Your task to perform on an android device: see sites visited before in the chrome app Image 0: 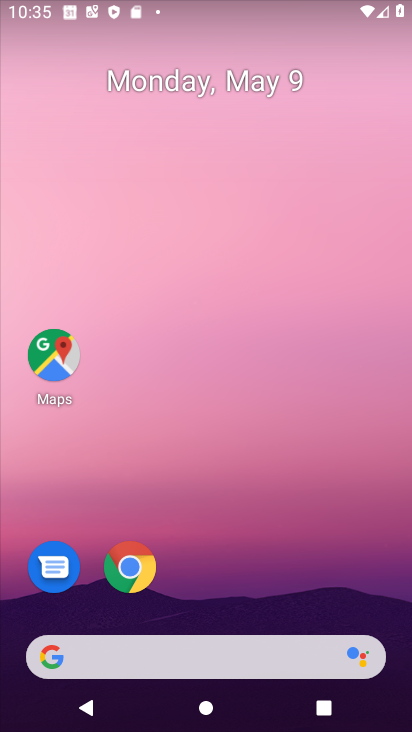
Step 0: click (131, 575)
Your task to perform on an android device: see sites visited before in the chrome app Image 1: 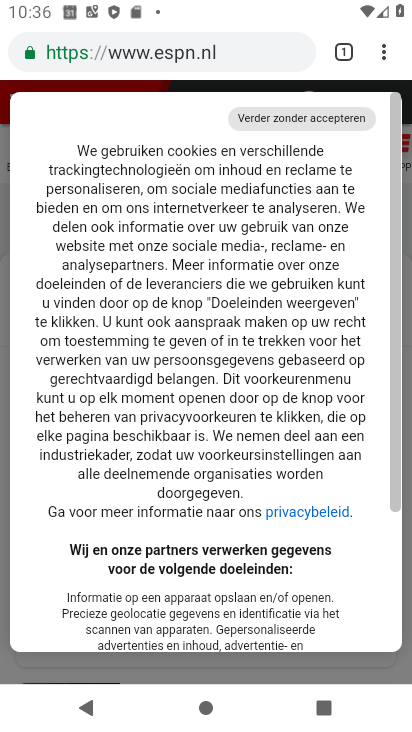
Step 1: click (385, 53)
Your task to perform on an android device: see sites visited before in the chrome app Image 2: 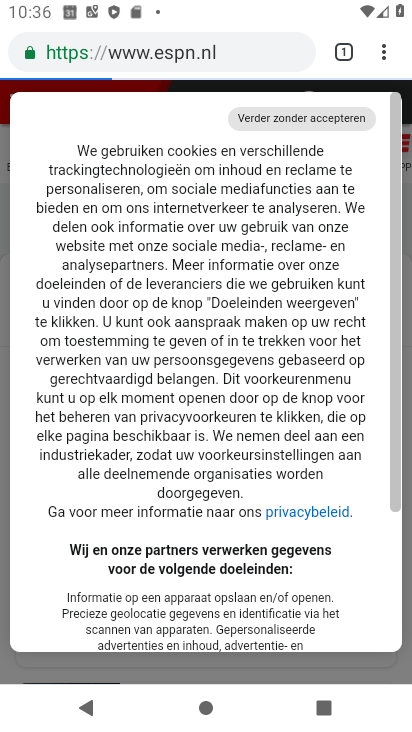
Step 2: task complete